Your task to perform on an android device: change notification settings in the gmail app Image 0: 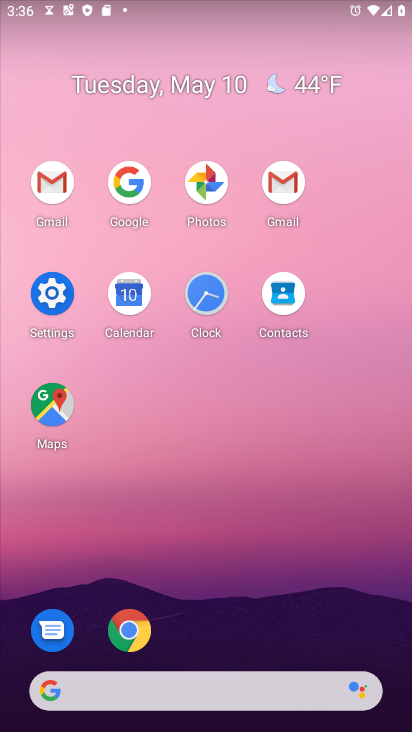
Step 0: click (281, 172)
Your task to perform on an android device: change notification settings in the gmail app Image 1: 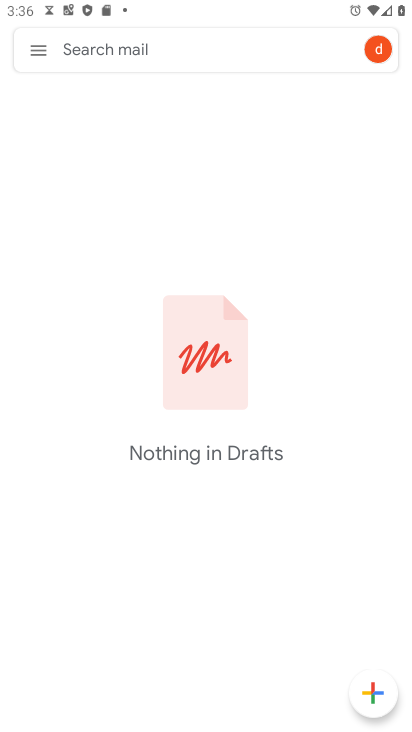
Step 1: click (29, 56)
Your task to perform on an android device: change notification settings in the gmail app Image 2: 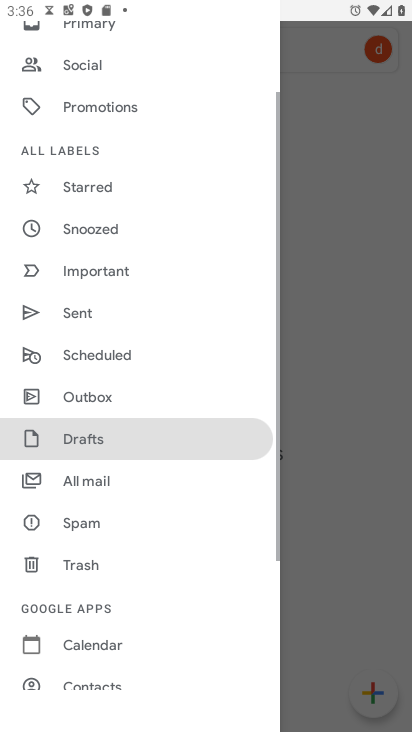
Step 2: drag from (149, 660) to (163, 278)
Your task to perform on an android device: change notification settings in the gmail app Image 3: 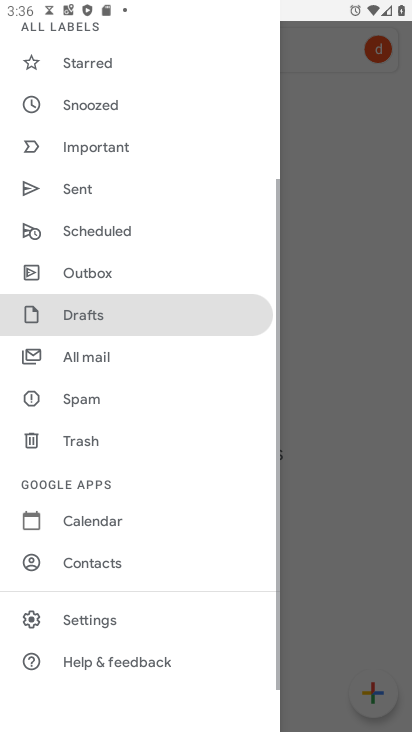
Step 3: click (142, 625)
Your task to perform on an android device: change notification settings in the gmail app Image 4: 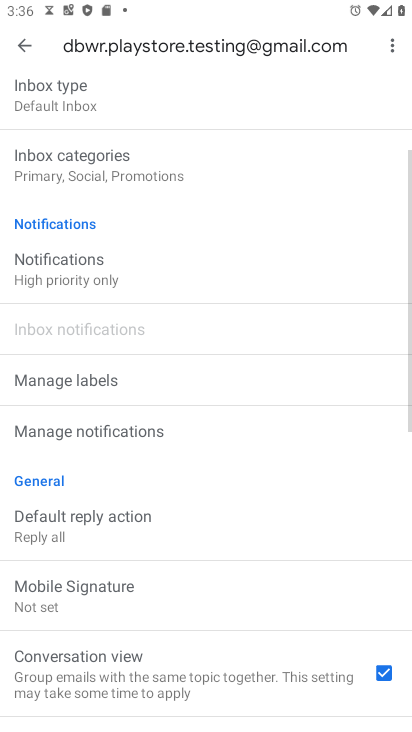
Step 4: click (122, 276)
Your task to perform on an android device: change notification settings in the gmail app Image 5: 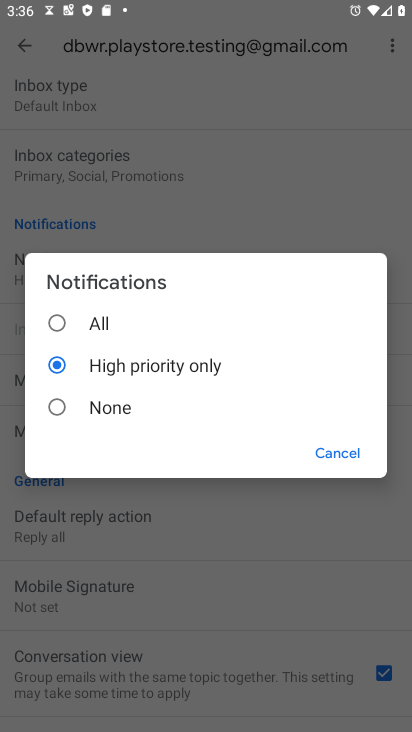
Step 5: click (84, 329)
Your task to perform on an android device: change notification settings in the gmail app Image 6: 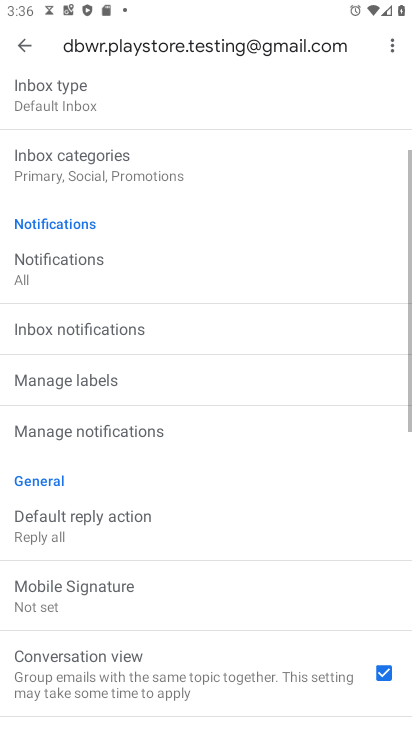
Step 6: task complete